Your task to perform on an android device: open chrome and create a bookmark for the current page Image 0: 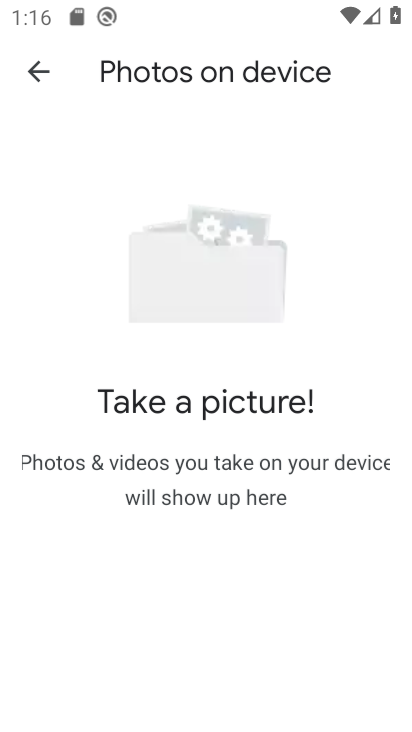
Step 0: drag from (220, 614) to (42, 568)
Your task to perform on an android device: open chrome and create a bookmark for the current page Image 1: 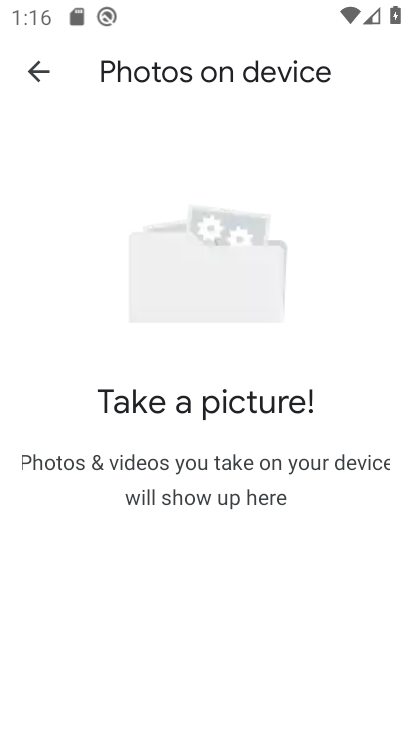
Step 1: press home button
Your task to perform on an android device: open chrome and create a bookmark for the current page Image 2: 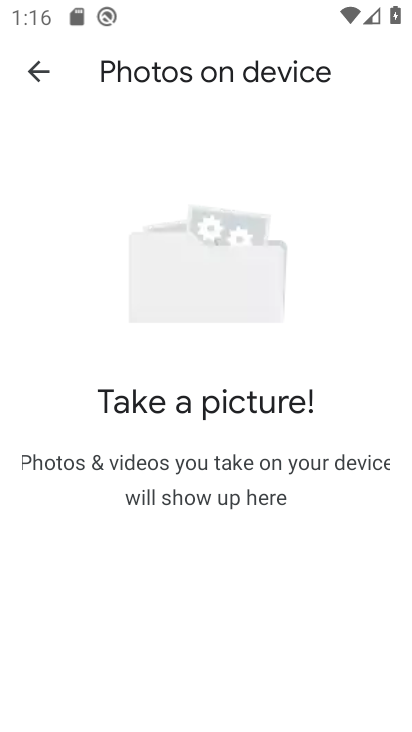
Step 2: press home button
Your task to perform on an android device: open chrome and create a bookmark for the current page Image 3: 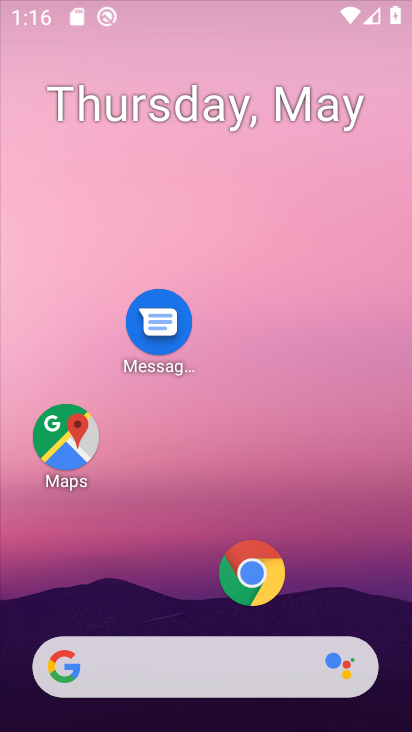
Step 3: drag from (232, 622) to (284, 56)
Your task to perform on an android device: open chrome and create a bookmark for the current page Image 4: 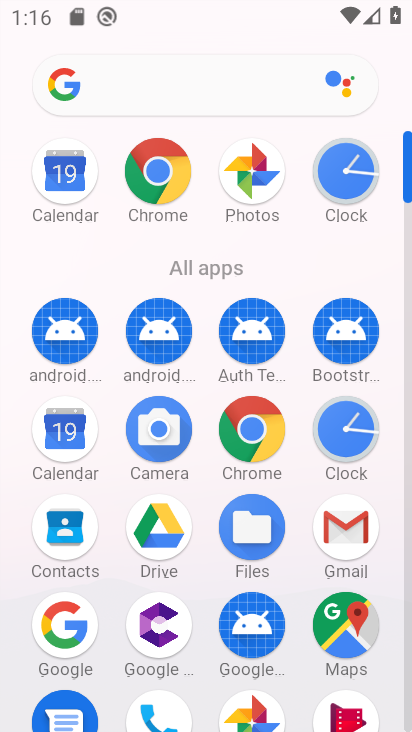
Step 4: click (253, 431)
Your task to perform on an android device: open chrome and create a bookmark for the current page Image 5: 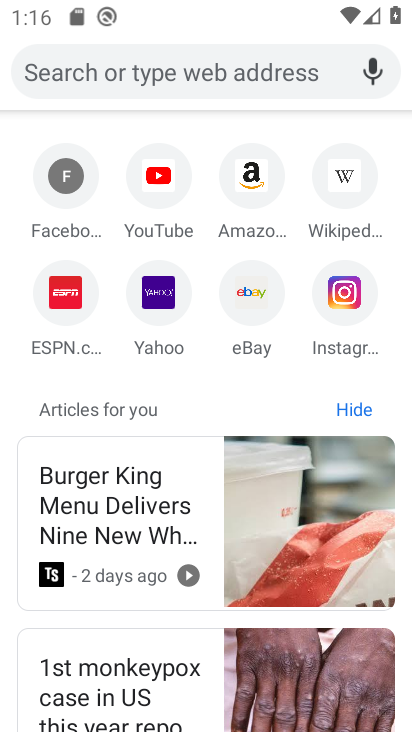
Step 5: drag from (308, 128) to (312, 343)
Your task to perform on an android device: open chrome and create a bookmark for the current page Image 6: 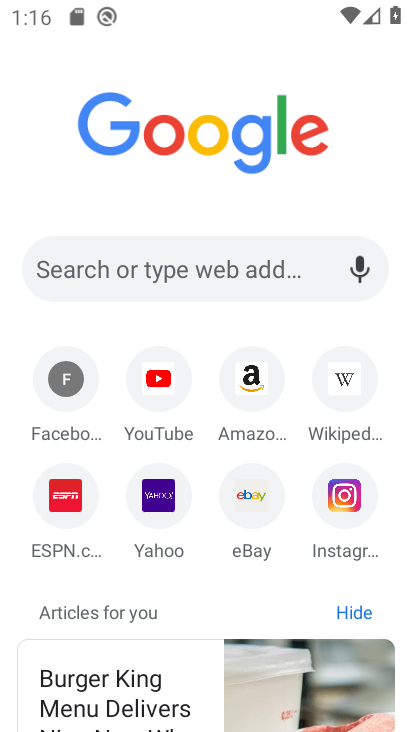
Step 6: drag from (209, 344) to (221, 449)
Your task to perform on an android device: open chrome and create a bookmark for the current page Image 7: 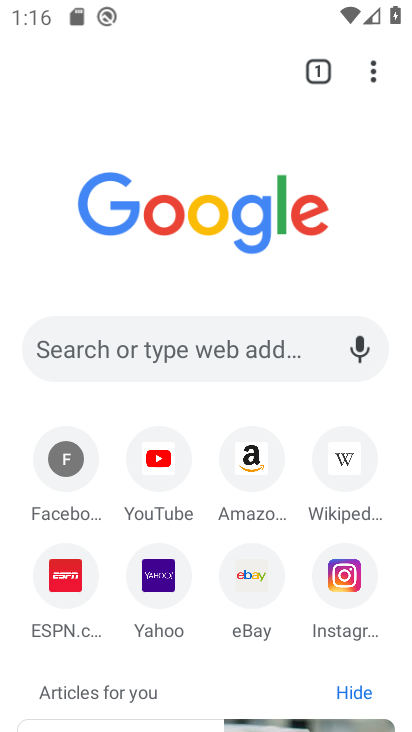
Step 7: click (375, 78)
Your task to perform on an android device: open chrome and create a bookmark for the current page Image 8: 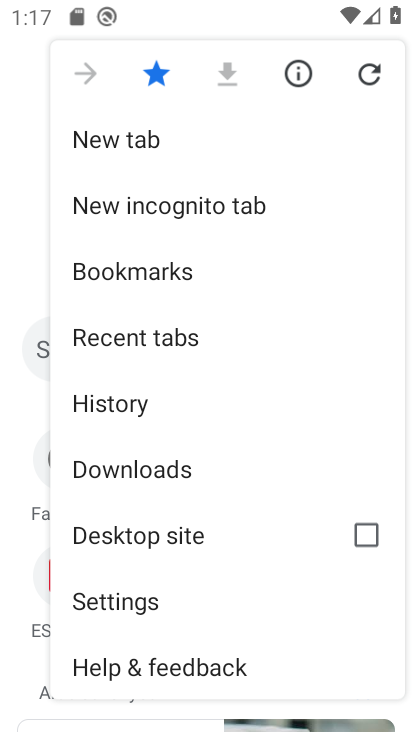
Step 8: task complete